Your task to perform on an android device: Add logitech g pro to the cart on walmart.com Image 0: 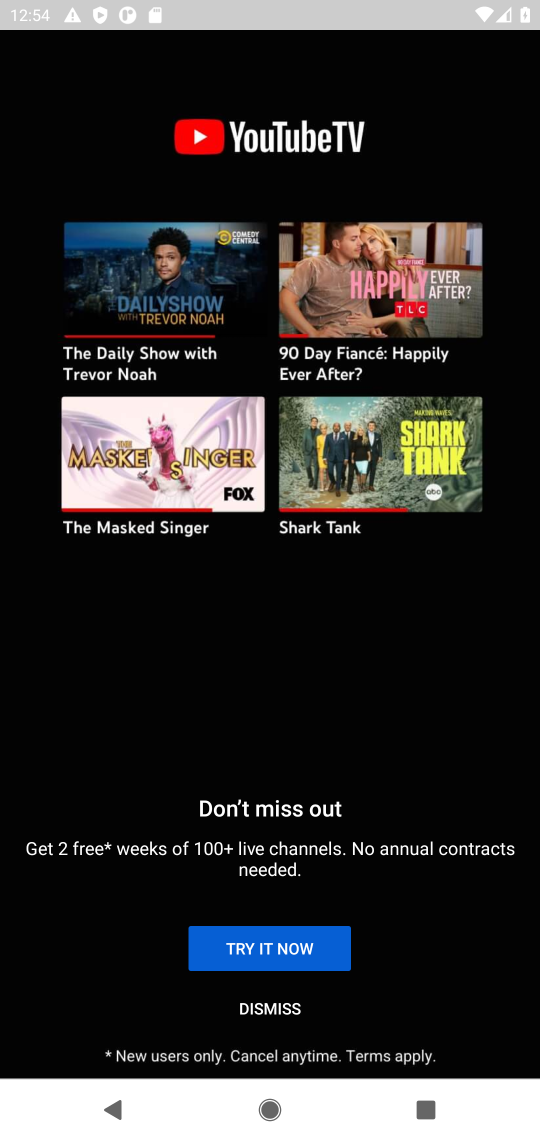
Step 0: press home button
Your task to perform on an android device: Add logitech g pro to the cart on walmart.com Image 1: 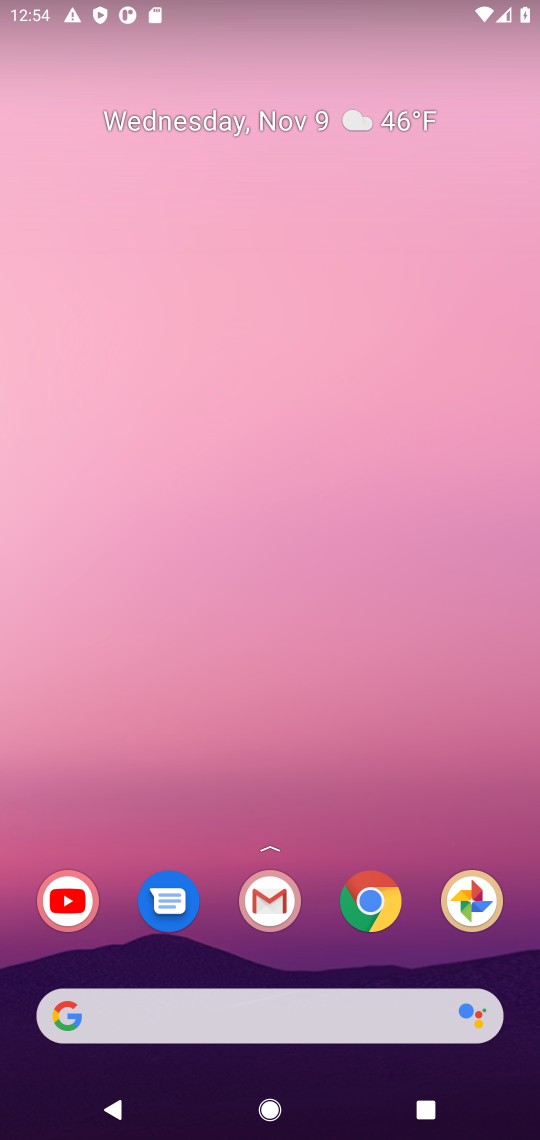
Step 1: click (384, 900)
Your task to perform on an android device: Add logitech g pro to the cart on walmart.com Image 2: 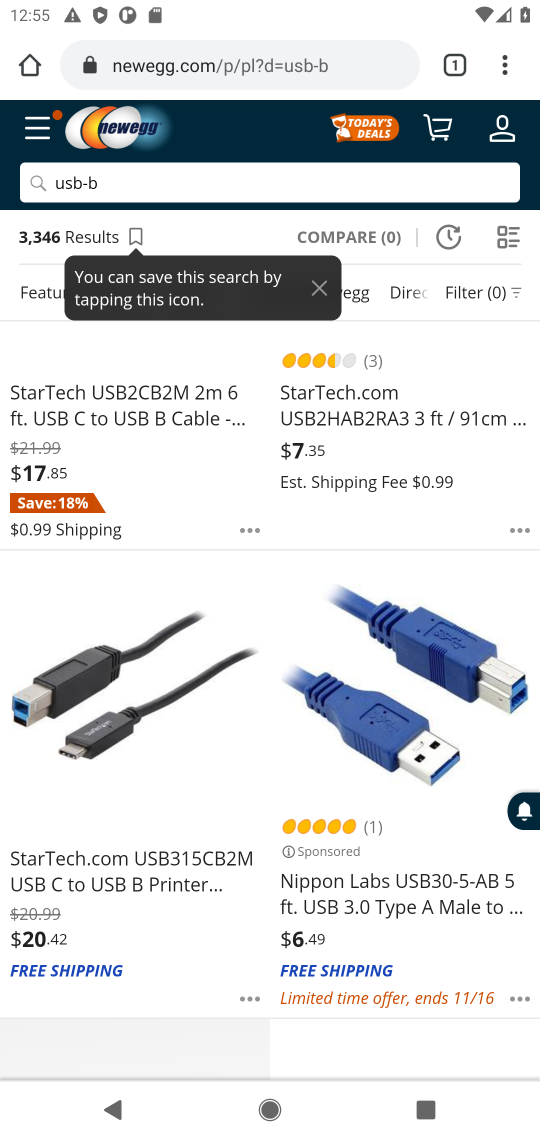
Step 2: click (234, 54)
Your task to perform on an android device: Add logitech g pro to the cart on walmart.com Image 3: 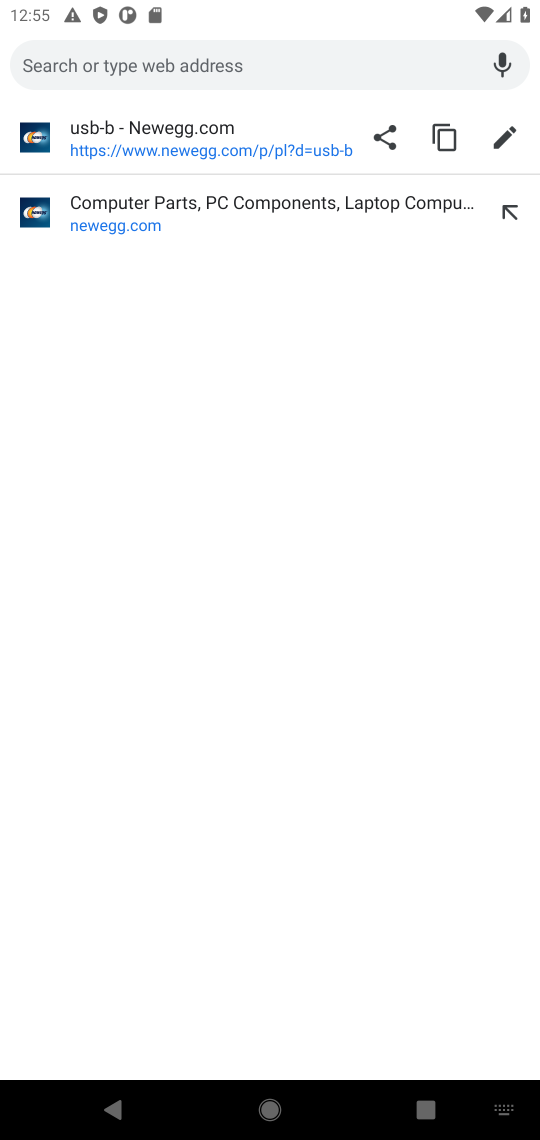
Step 3: type "walmart.com"
Your task to perform on an android device: Add logitech g pro to the cart on walmart.com Image 4: 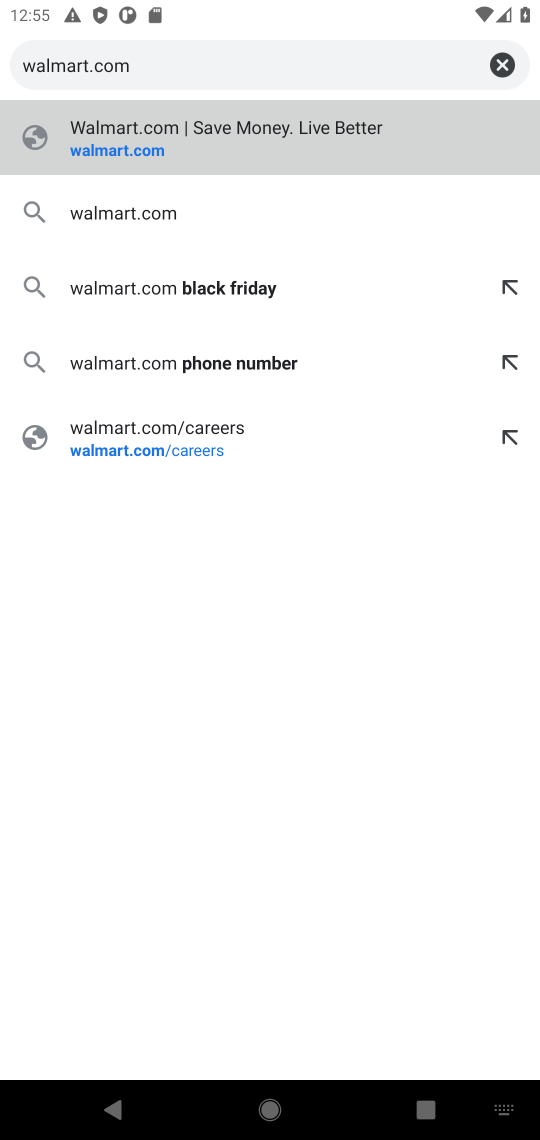
Step 4: press enter
Your task to perform on an android device: Add logitech g pro to the cart on walmart.com Image 5: 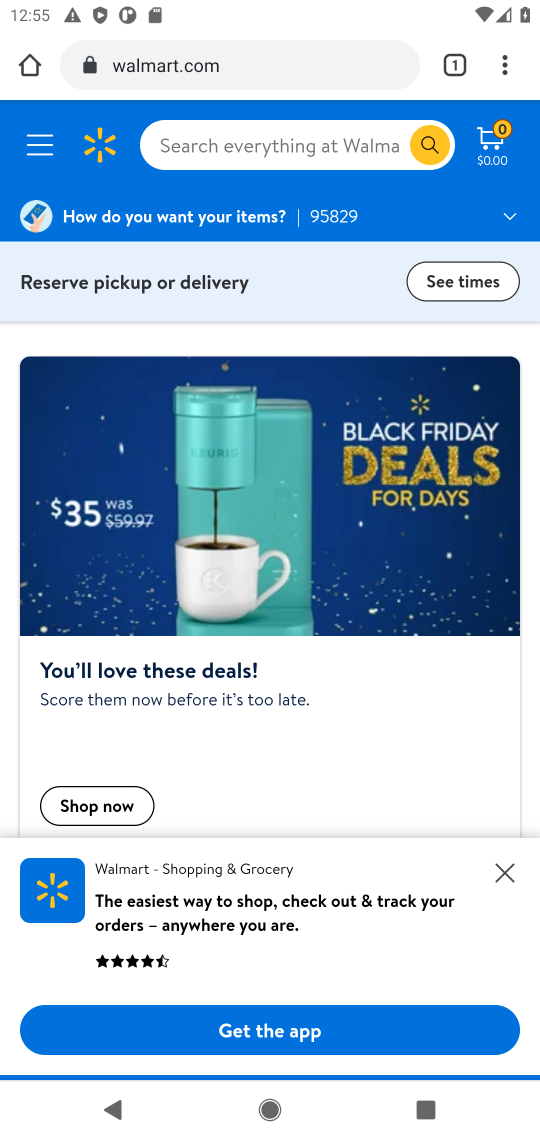
Step 5: click (275, 142)
Your task to perform on an android device: Add logitech g pro to the cart on walmart.com Image 6: 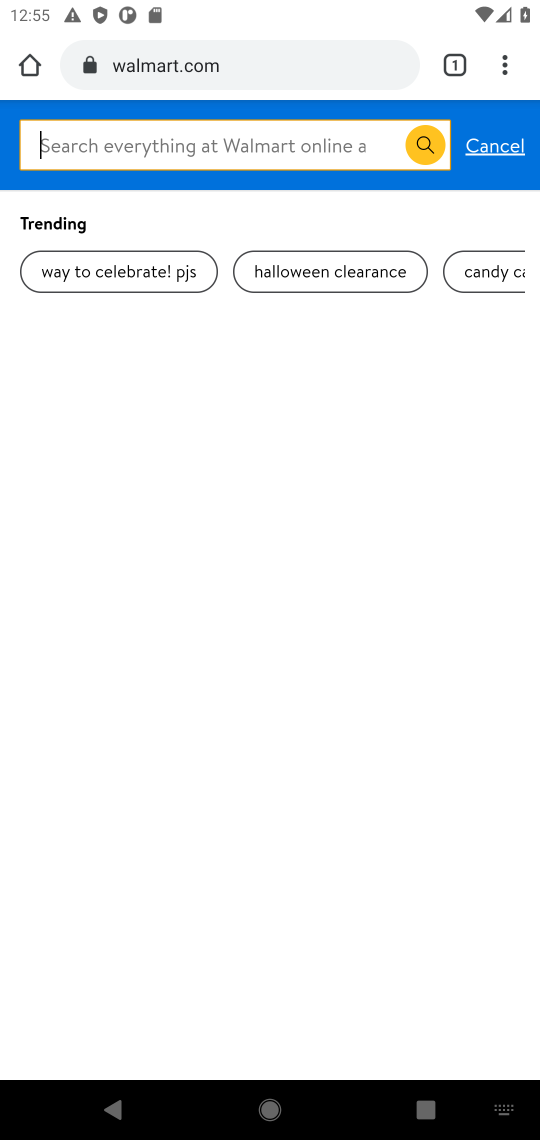
Step 6: type "logitech g pro"
Your task to perform on an android device: Add logitech g pro to the cart on walmart.com Image 7: 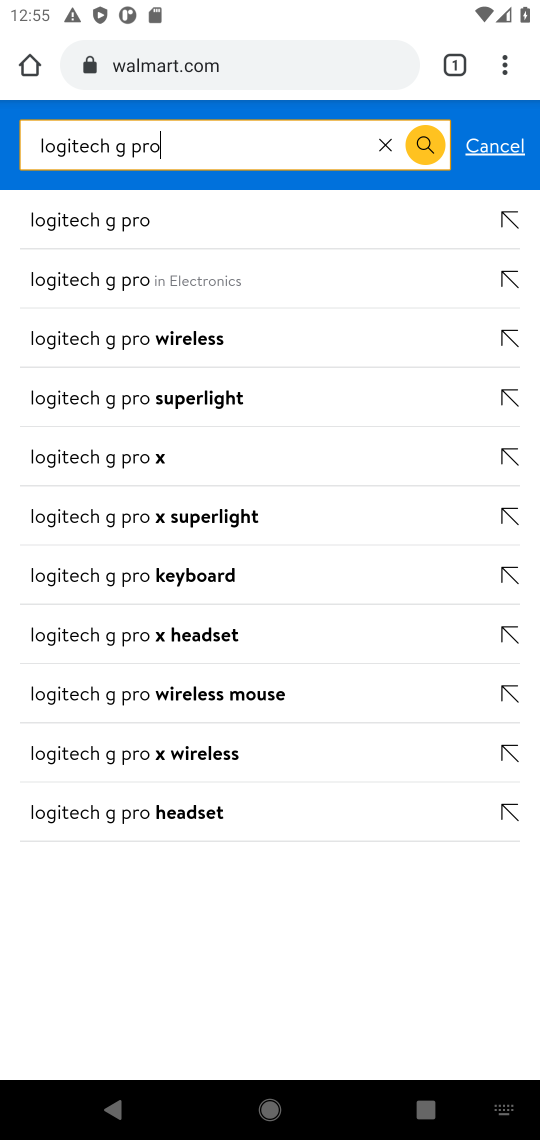
Step 7: press enter
Your task to perform on an android device: Add logitech g pro to the cart on walmart.com Image 8: 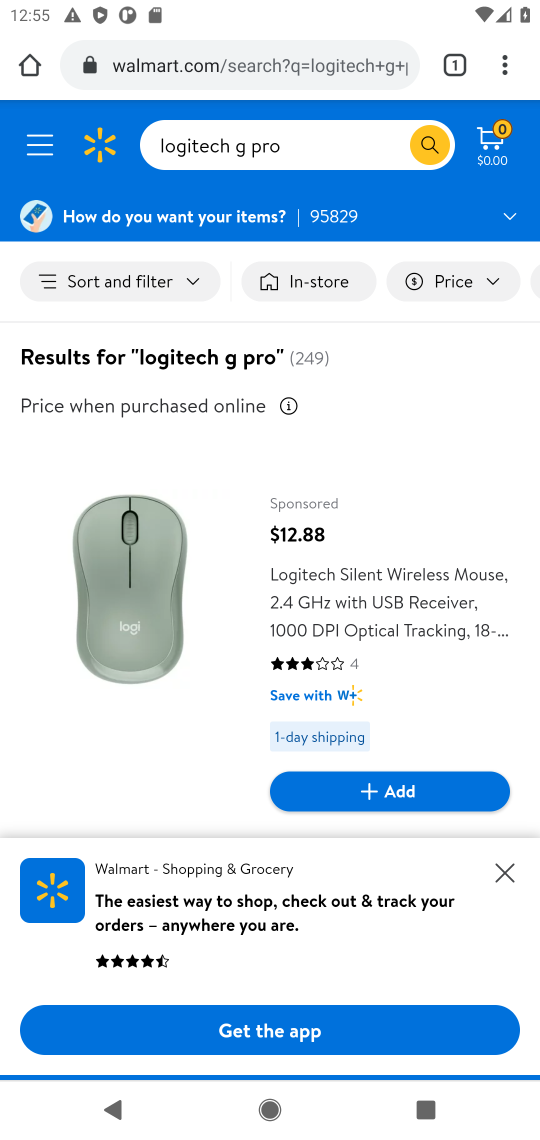
Step 8: click (503, 874)
Your task to perform on an android device: Add logitech g pro to the cart on walmart.com Image 9: 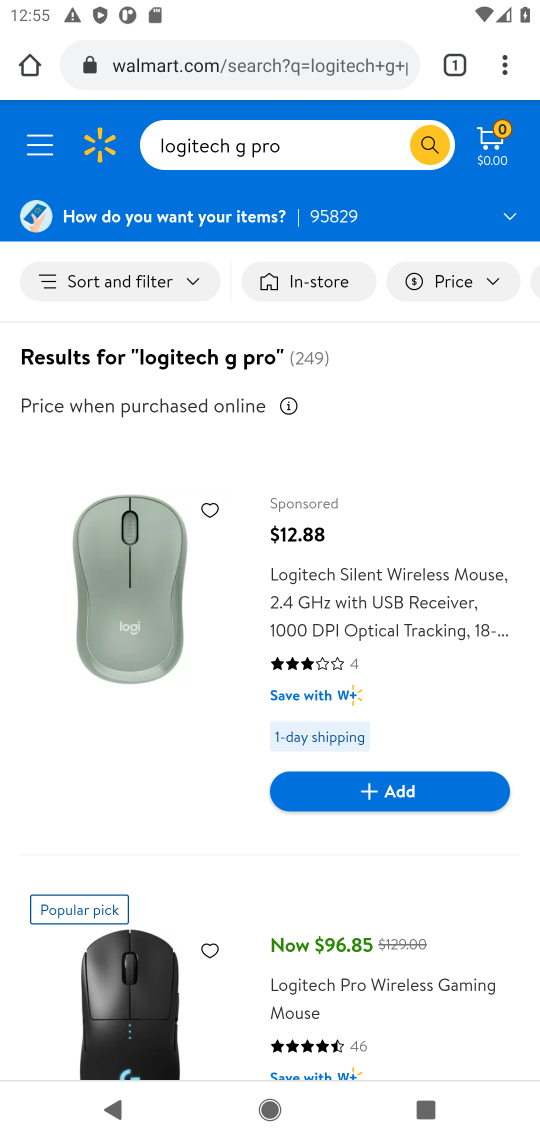
Step 9: drag from (419, 647) to (491, 327)
Your task to perform on an android device: Add logitech g pro to the cart on walmart.com Image 10: 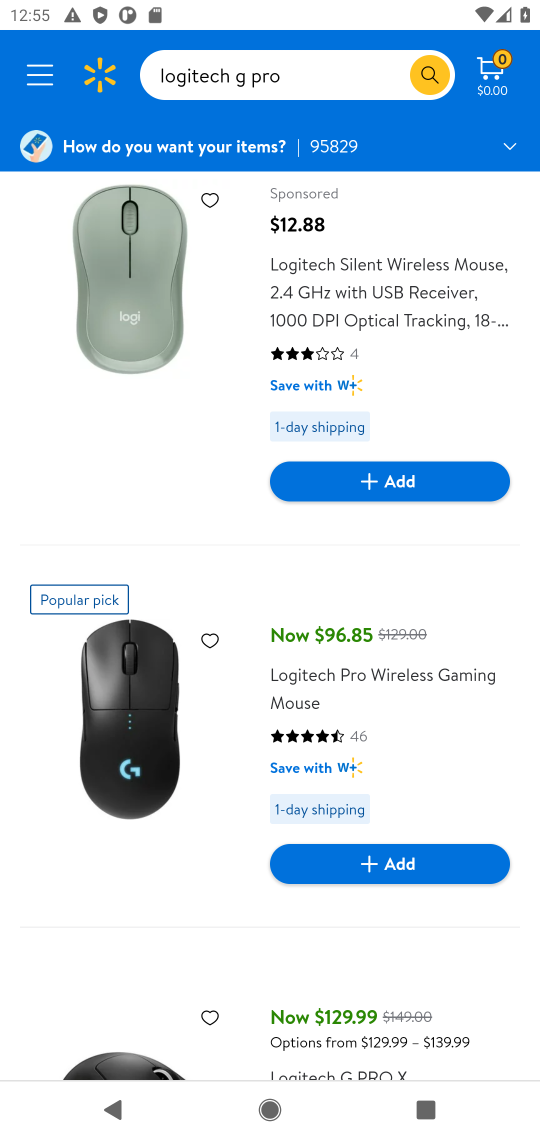
Step 10: drag from (451, 755) to (529, 446)
Your task to perform on an android device: Add logitech g pro to the cart on walmart.com Image 11: 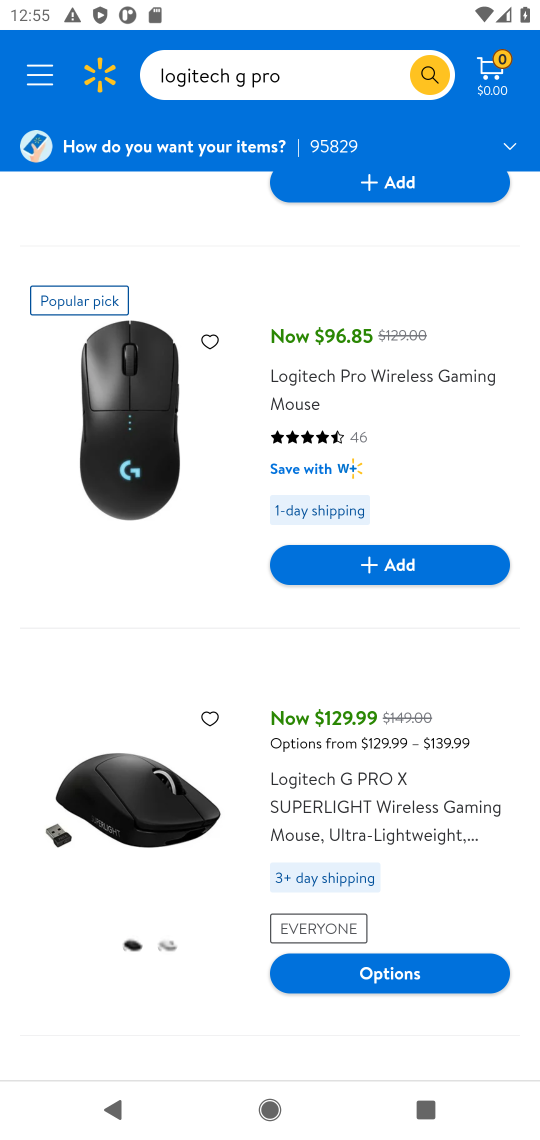
Step 11: drag from (448, 787) to (514, 445)
Your task to perform on an android device: Add logitech g pro to the cart on walmart.com Image 12: 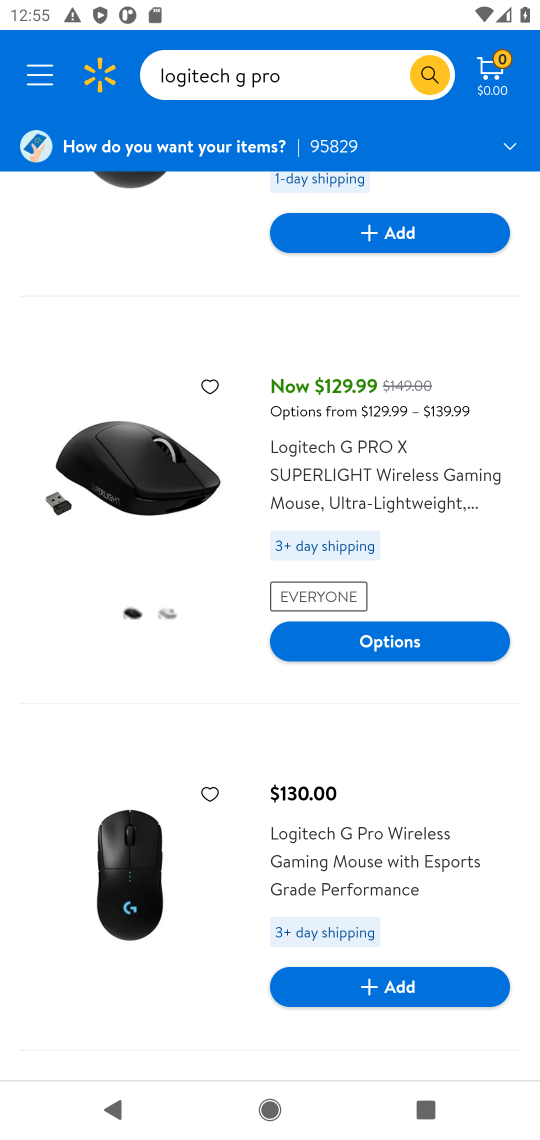
Step 12: click (166, 880)
Your task to perform on an android device: Add logitech g pro to the cart on walmart.com Image 13: 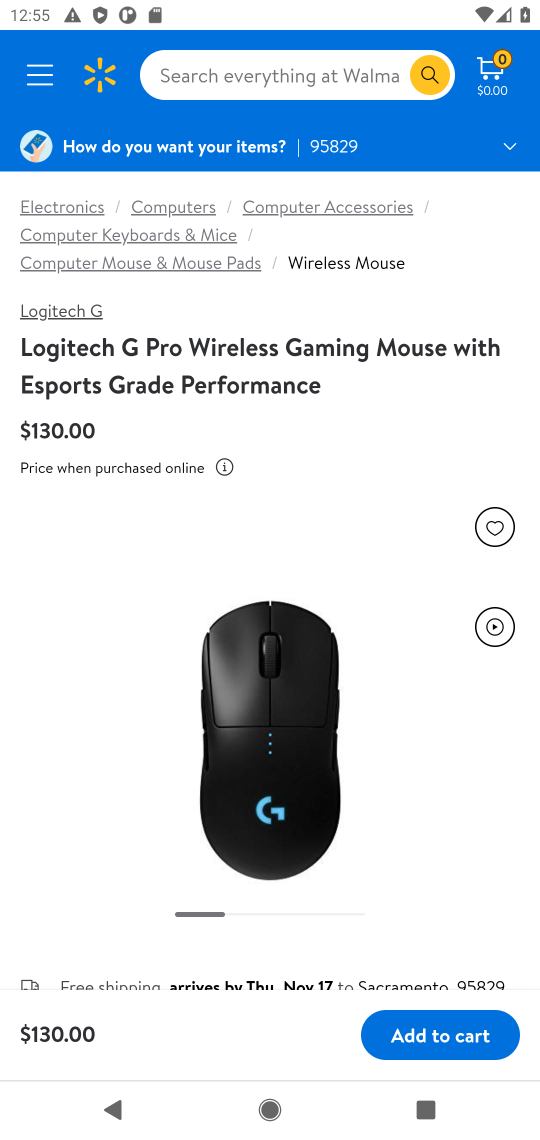
Step 13: click (437, 1032)
Your task to perform on an android device: Add logitech g pro to the cart on walmart.com Image 14: 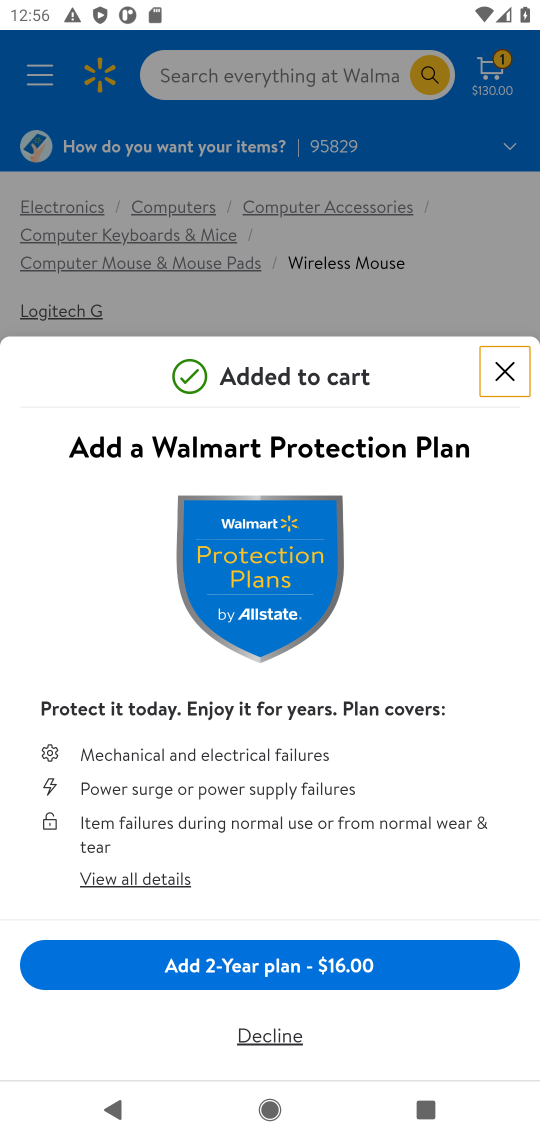
Step 14: task complete